Your task to perform on an android device: change your default location settings in chrome Image 0: 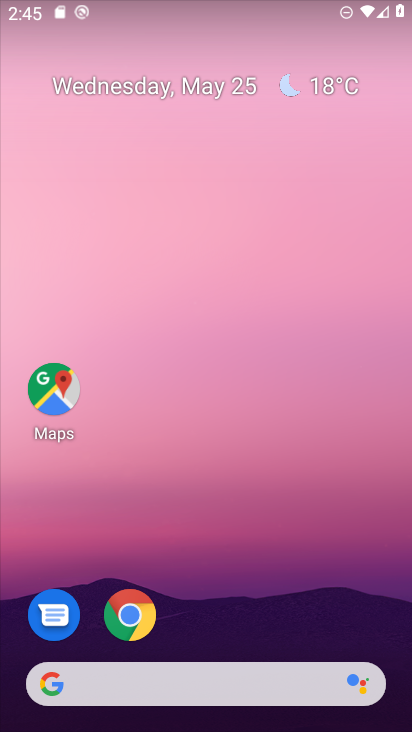
Step 0: click (137, 616)
Your task to perform on an android device: change your default location settings in chrome Image 1: 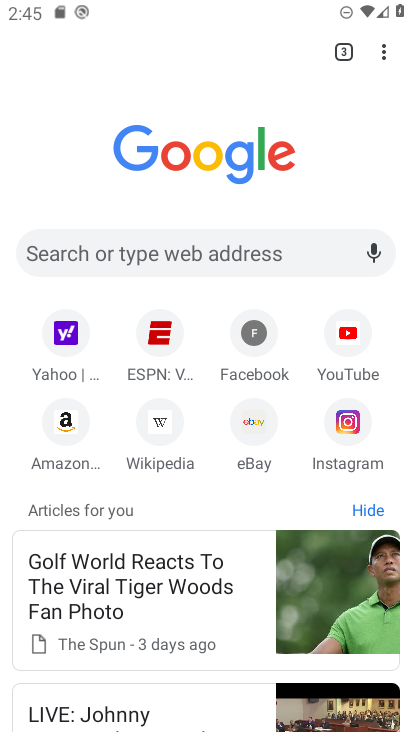
Step 1: click (382, 49)
Your task to perform on an android device: change your default location settings in chrome Image 2: 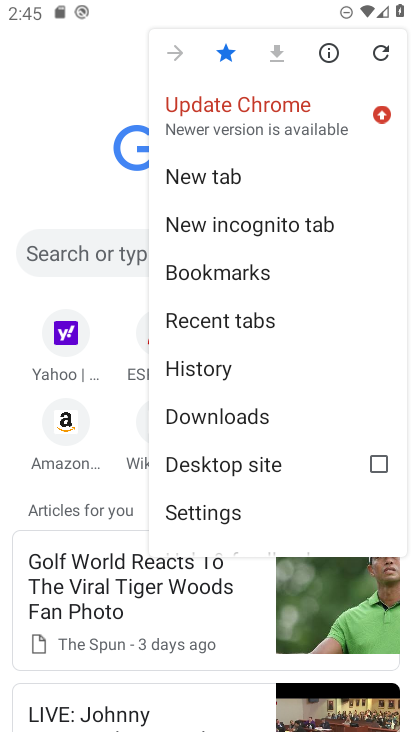
Step 2: click (219, 500)
Your task to perform on an android device: change your default location settings in chrome Image 3: 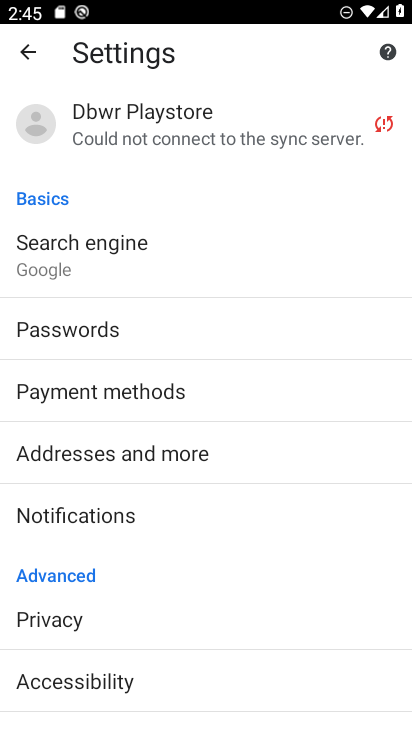
Step 3: drag from (215, 573) to (211, 269)
Your task to perform on an android device: change your default location settings in chrome Image 4: 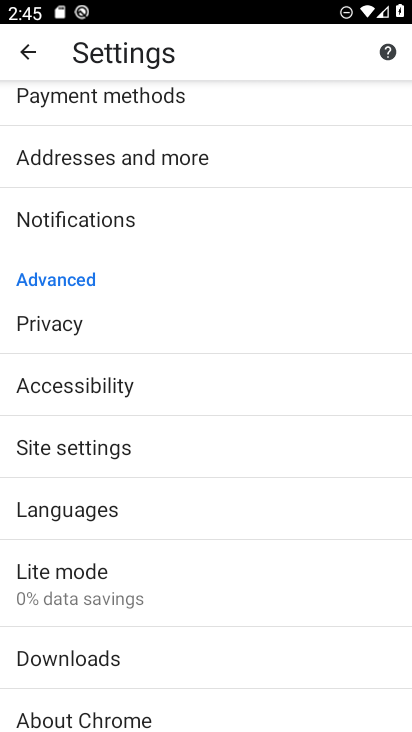
Step 4: click (185, 444)
Your task to perform on an android device: change your default location settings in chrome Image 5: 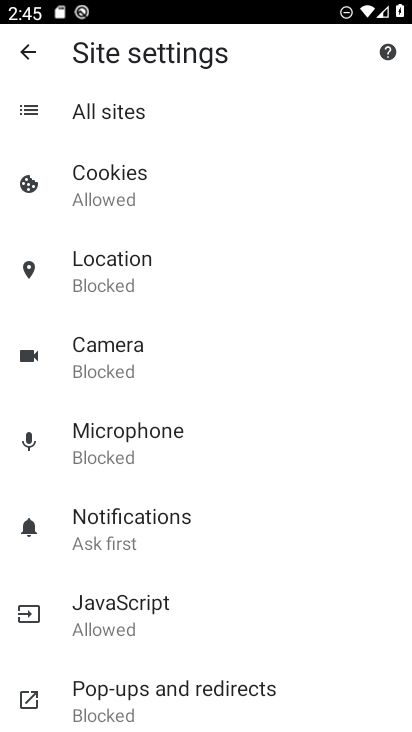
Step 5: click (141, 273)
Your task to perform on an android device: change your default location settings in chrome Image 6: 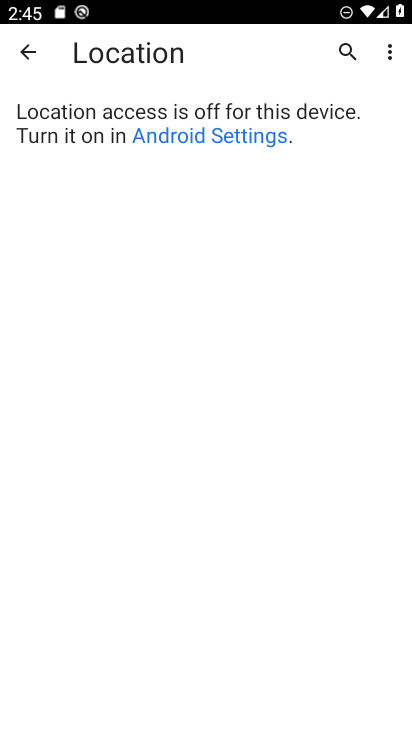
Step 6: click (261, 138)
Your task to perform on an android device: change your default location settings in chrome Image 7: 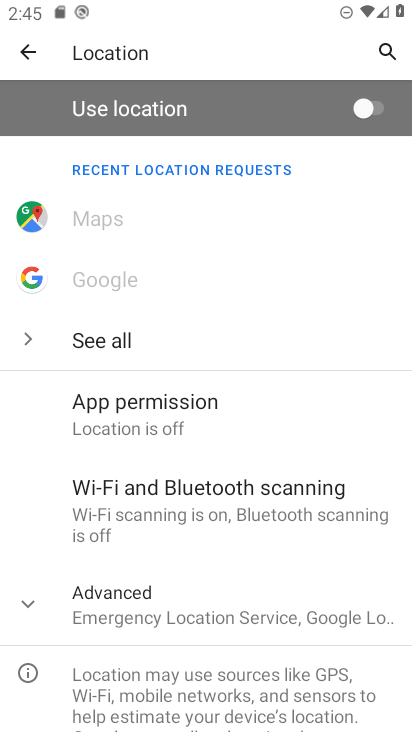
Step 7: click (360, 112)
Your task to perform on an android device: change your default location settings in chrome Image 8: 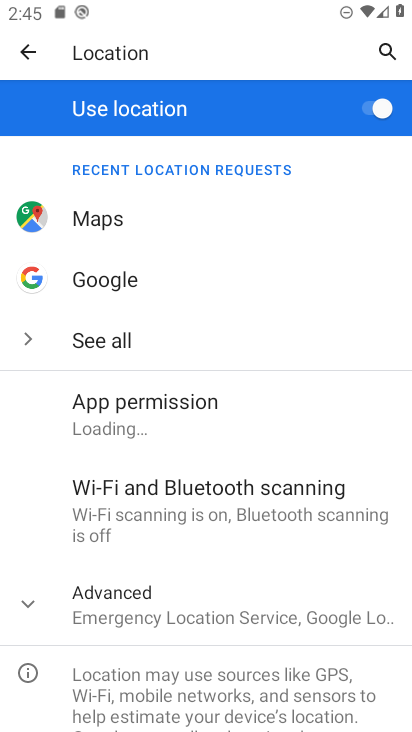
Step 8: task complete